Your task to perform on an android device: Is it going to rain today? Image 0: 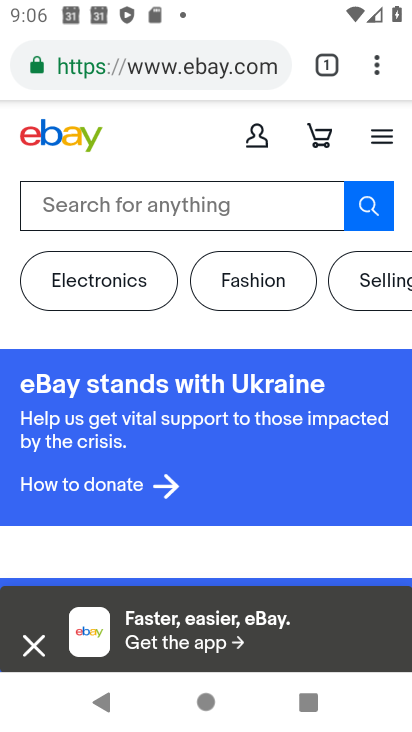
Step 0: press home button
Your task to perform on an android device: Is it going to rain today? Image 1: 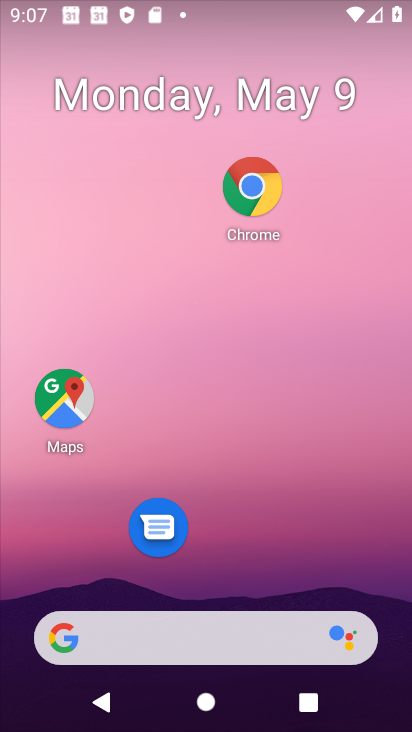
Step 1: drag from (4, 300) to (409, 323)
Your task to perform on an android device: Is it going to rain today? Image 2: 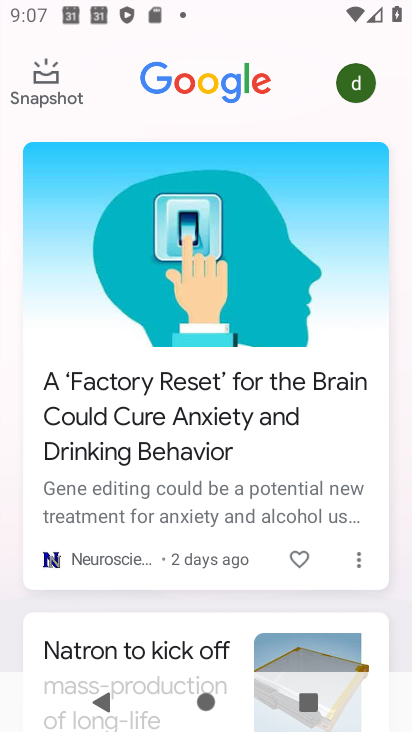
Step 2: press back button
Your task to perform on an android device: Is it going to rain today? Image 3: 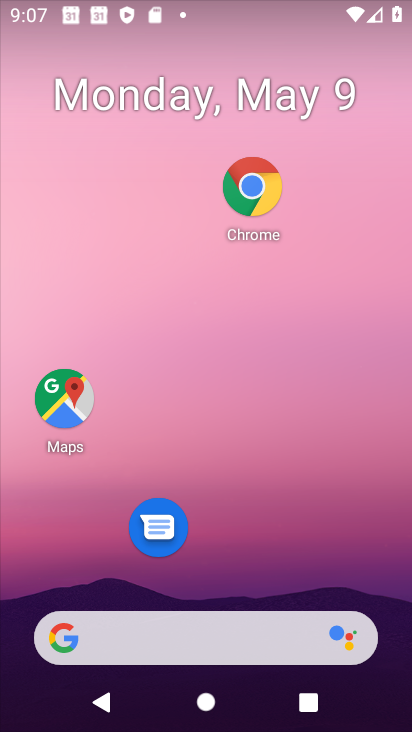
Step 3: drag from (208, 597) to (301, 1)
Your task to perform on an android device: Is it going to rain today? Image 4: 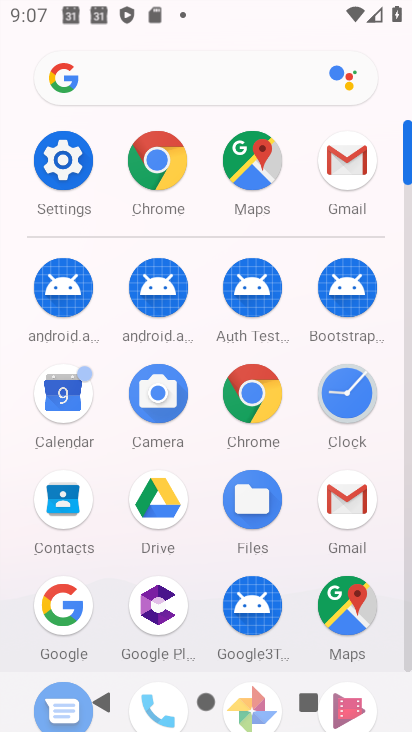
Step 4: click (54, 599)
Your task to perform on an android device: Is it going to rain today? Image 5: 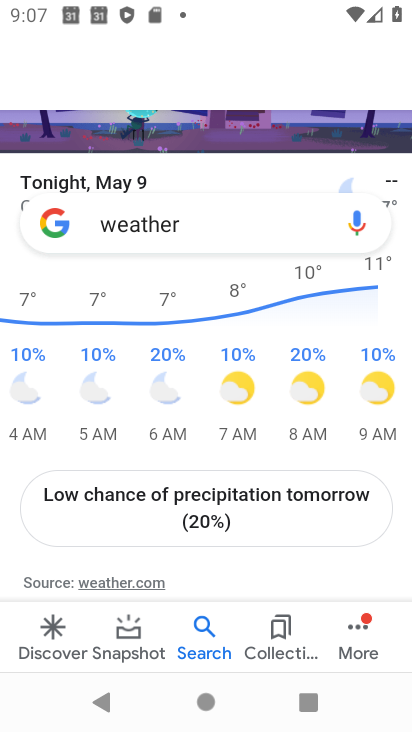
Step 5: drag from (165, 248) to (180, 601)
Your task to perform on an android device: Is it going to rain today? Image 6: 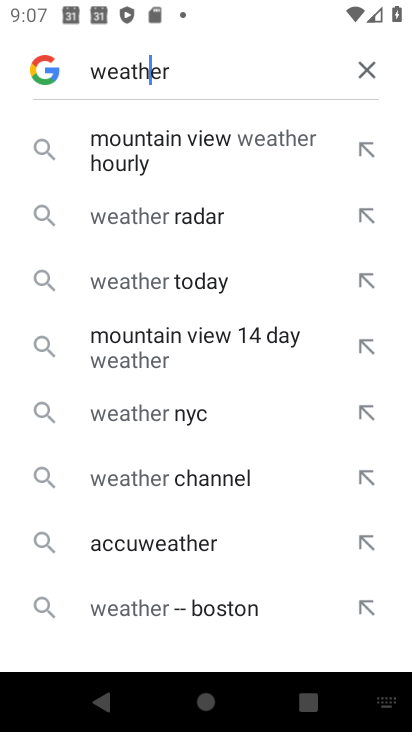
Step 6: click (214, 67)
Your task to perform on an android device: Is it going to rain today? Image 7: 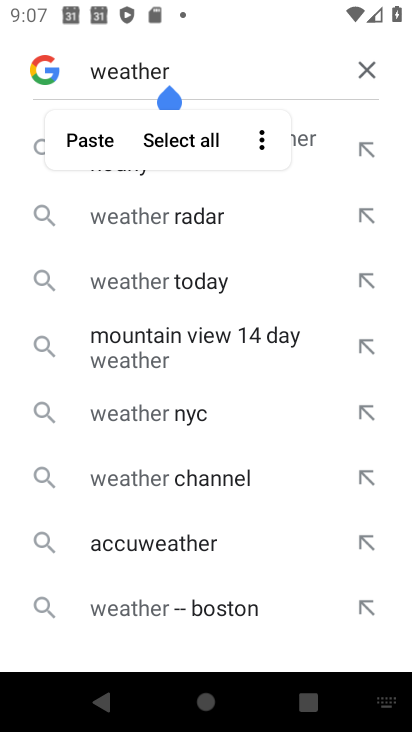
Step 7: click (175, 278)
Your task to perform on an android device: Is it going to rain today? Image 8: 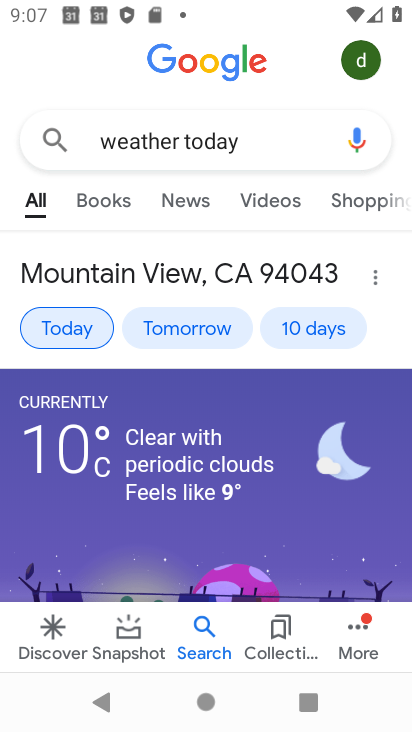
Step 8: drag from (148, 502) to (187, 300)
Your task to perform on an android device: Is it going to rain today? Image 9: 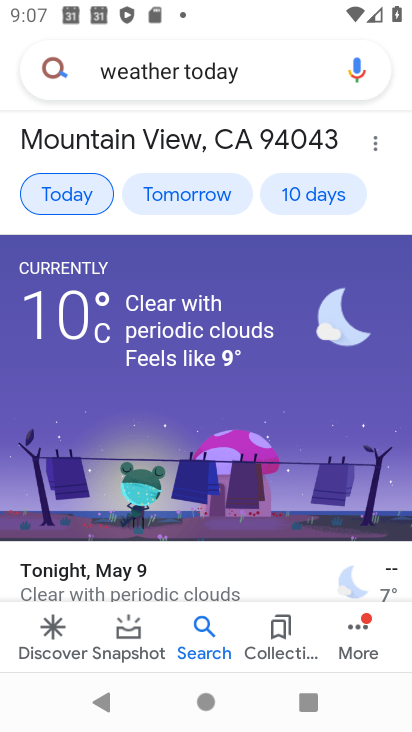
Step 9: click (200, 245)
Your task to perform on an android device: Is it going to rain today? Image 10: 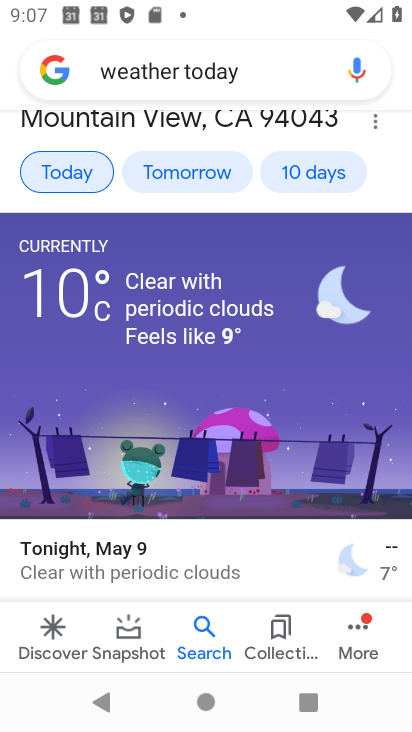
Step 10: task complete